Your task to perform on an android device: When is my next meeting? Image 0: 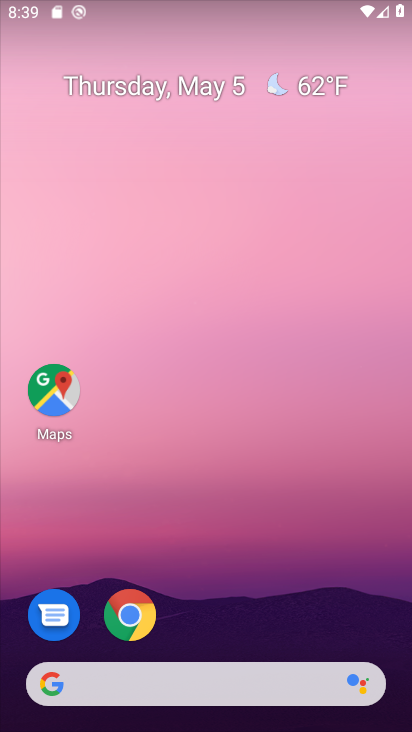
Step 0: drag from (224, 669) to (219, 242)
Your task to perform on an android device: When is my next meeting? Image 1: 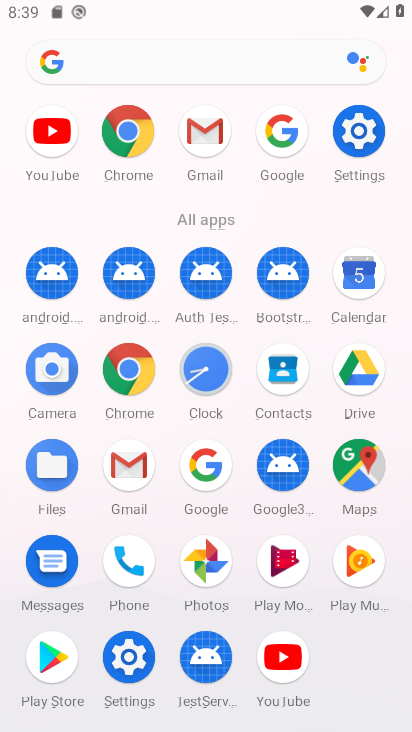
Step 1: click (357, 288)
Your task to perform on an android device: When is my next meeting? Image 2: 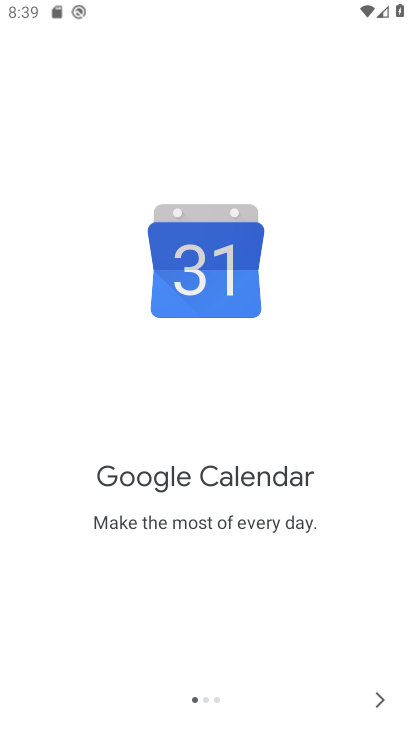
Step 2: click (376, 697)
Your task to perform on an android device: When is my next meeting? Image 3: 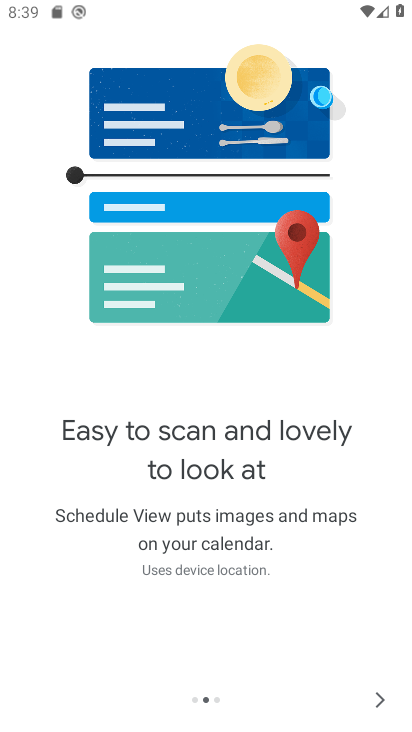
Step 3: click (376, 697)
Your task to perform on an android device: When is my next meeting? Image 4: 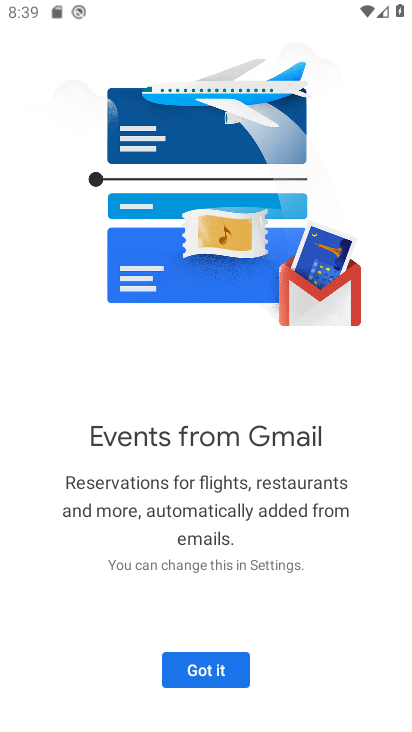
Step 4: click (180, 681)
Your task to perform on an android device: When is my next meeting? Image 5: 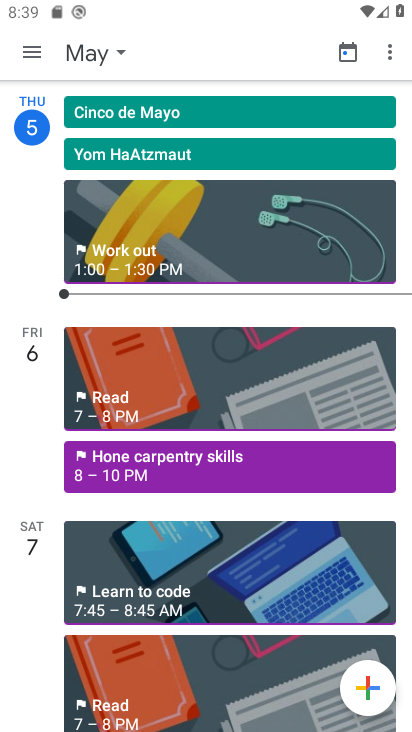
Step 5: click (34, 53)
Your task to perform on an android device: When is my next meeting? Image 6: 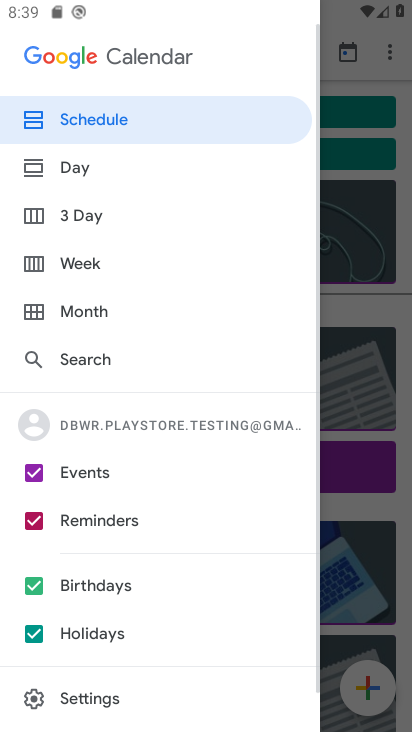
Step 6: click (66, 131)
Your task to perform on an android device: When is my next meeting? Image 7: 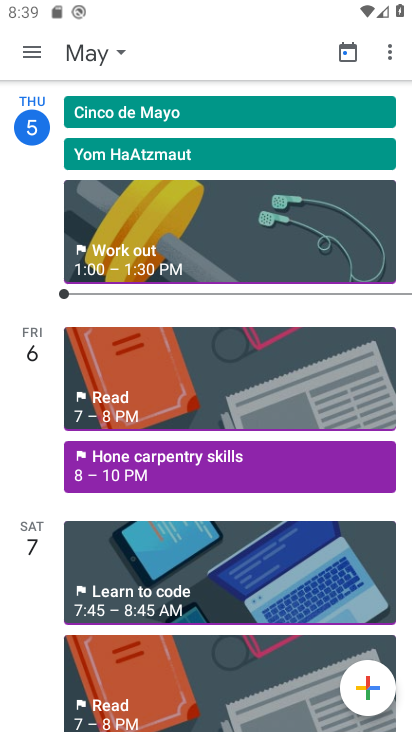
Step 7: task complete